Your task to perform on an android device: turn off wifi Image 0: 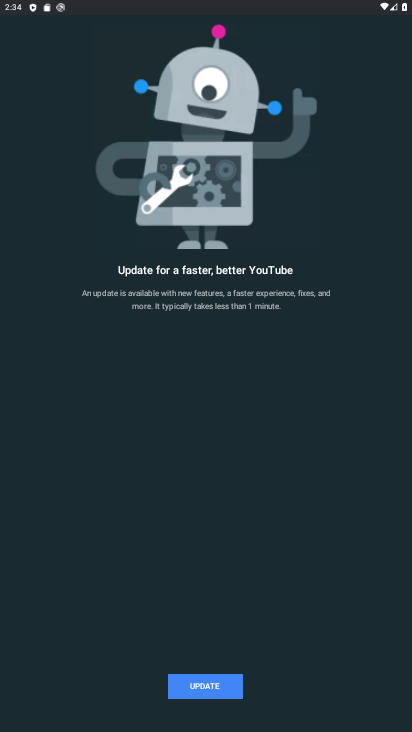
Step 0: press home button
Your task to perform on an android device: turn off wifi Image 1: 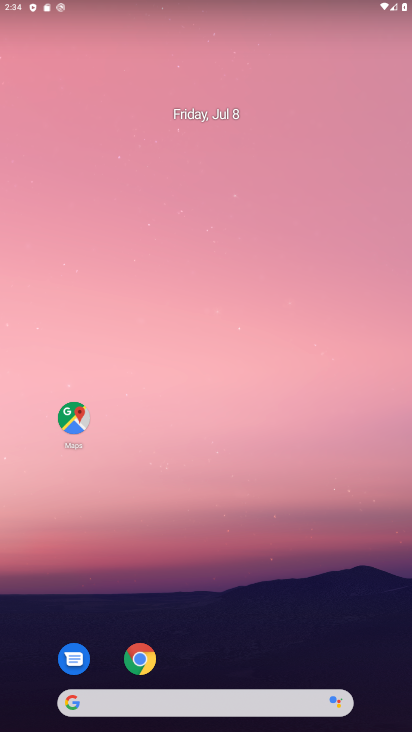
Step 1: drag from (208, 669) to (218, 74)
Your task to perform on an android device: turn off wifi Image 2: 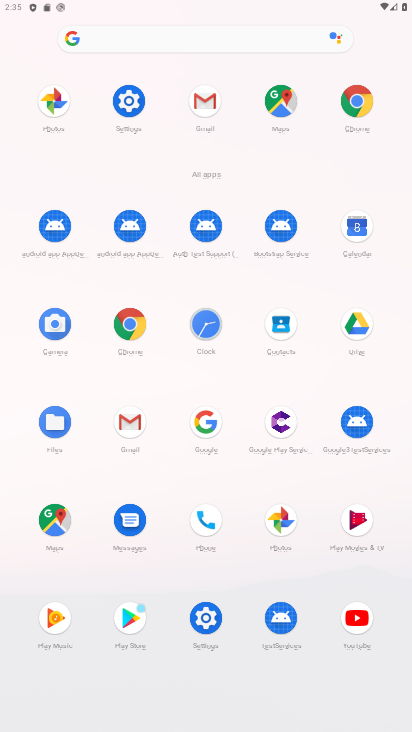
Step 2: click (129, 95)
Your task to perform on an android device: turn off wifi Image 3: 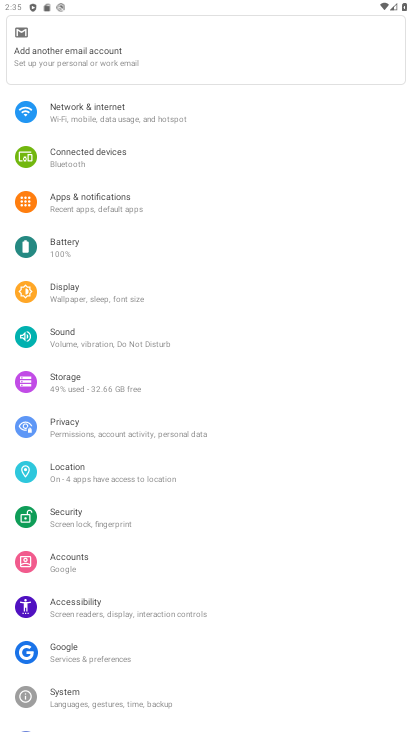
Step 3: click (114, 109)
Your task to perform on an android device: turn off wifi Image 4: 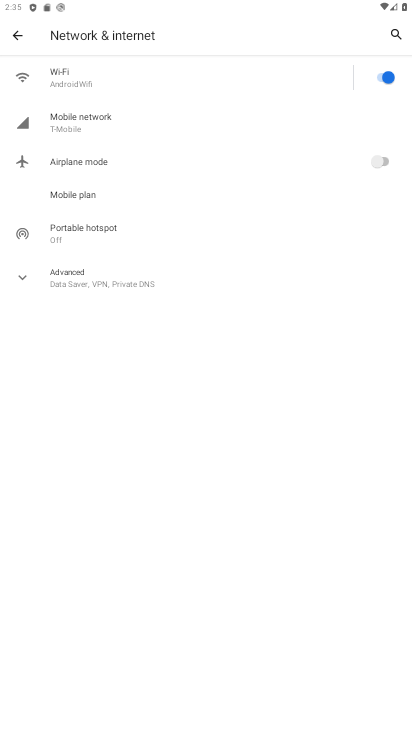
Step 4: click (380, 78)
Your task to perform on an android device: turn off wifi Image 5: 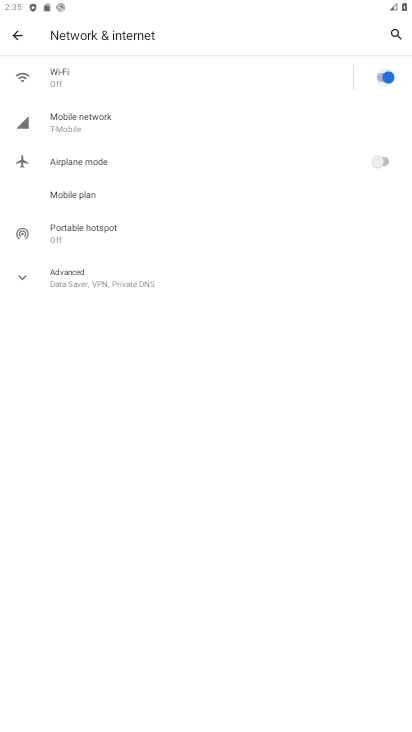
Step 5: task complete